Your task to perform on an android device: turn on wifi Image 0: 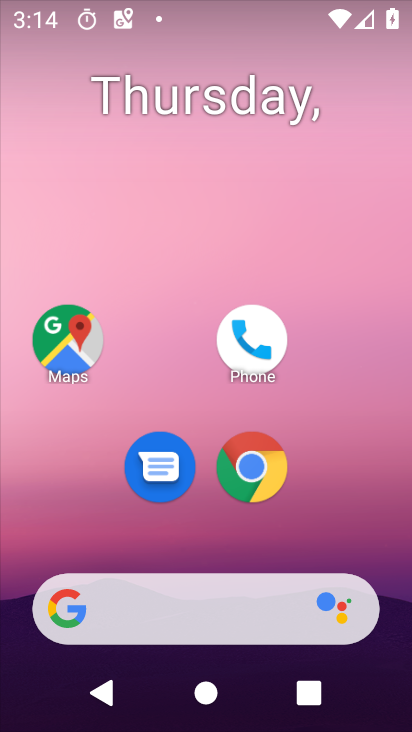
Step 0: click (234, 570)
Your task to perform on an android device: turn on wifi Image 1: 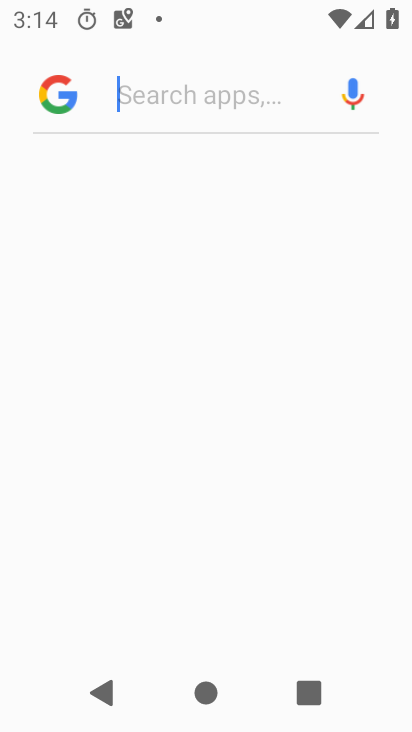
Step 1: drag from (208, 544) to (230, 76)
Your task to perform on an android device: turn on wifi Image 2: 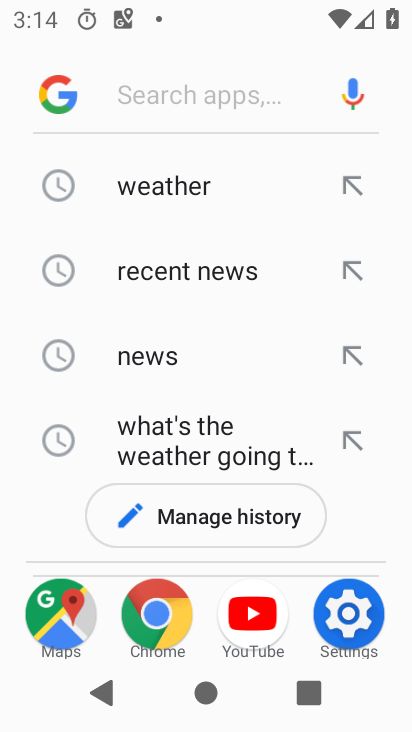
Step 2: press home button
Your task to perform on an android device: turn on wifi Image 3: 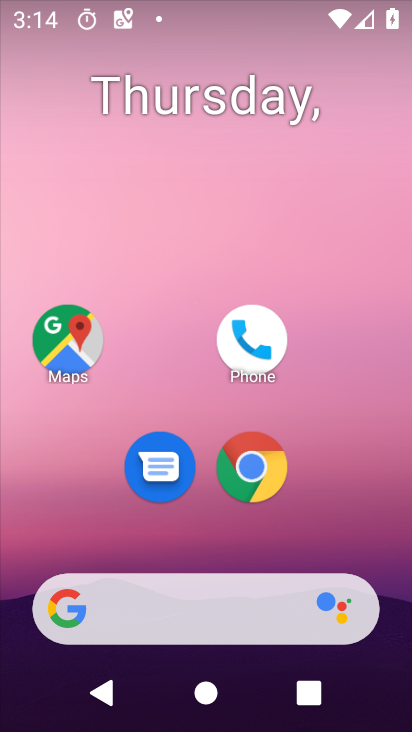
Step 3: drag from (209, 543) to (208, 167)
Your task to perform on an android device: turn on wifi Image 4: 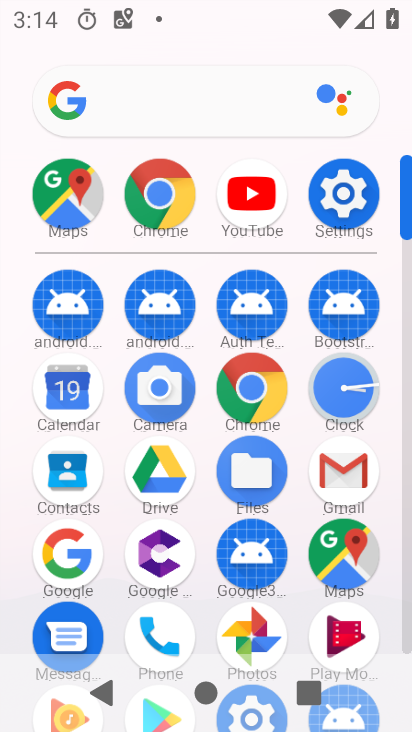
Step 4: click (335, 195)
Your task to perform on an android device: turn on wifi Image 5: 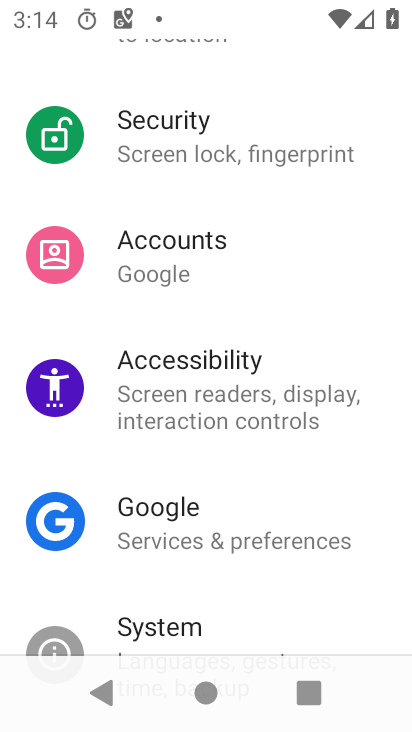
Step 5: drag from (238, 196) to (326, 722)
Your task to perform on an android device: turn on wifi Image 6: 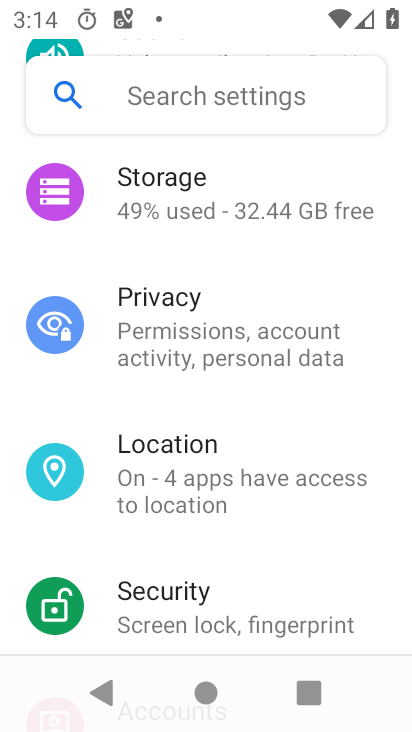
Step 6: drag from (251, 262) to (322, 731)
Your task to perform on an android device: turn on wifi Image 7: 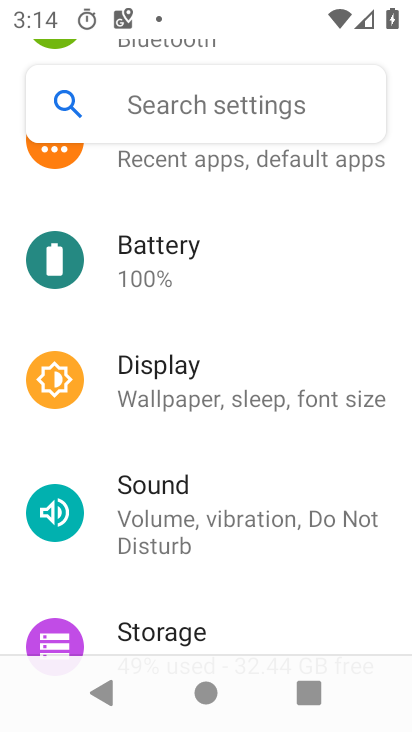
Step 7: drag from (222, 243) to (290, 729)
Your task to perform on an android device: turn on wifi Image 8: 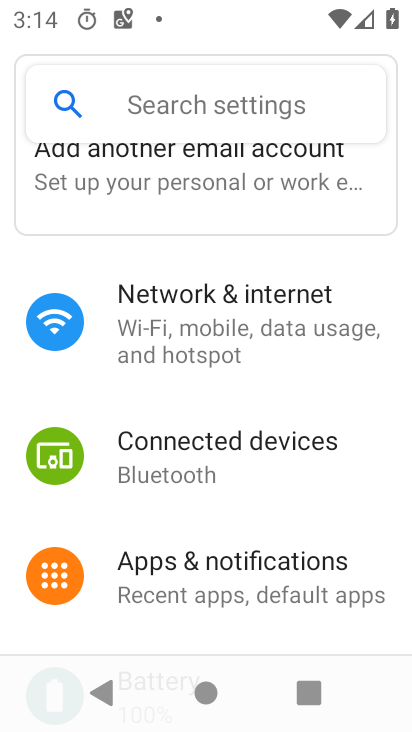
Step 8: drag from (201, 270) to (346, 161)
Your task to perform on an android device: turn on wifi Image 9: 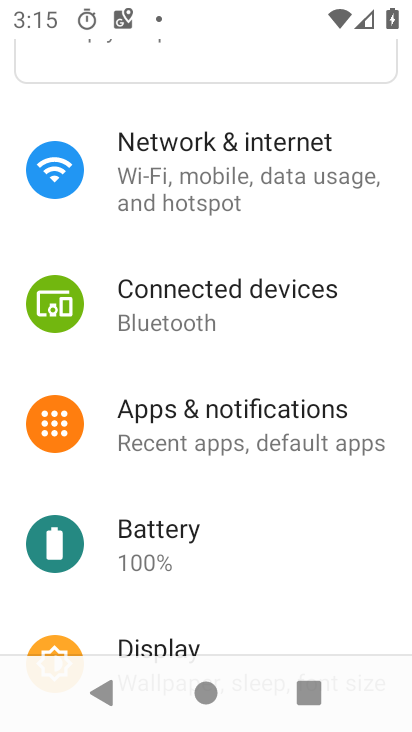
Step 9: click (221, 180)
Your task to perform on an android device: turn on wifi Image 10: 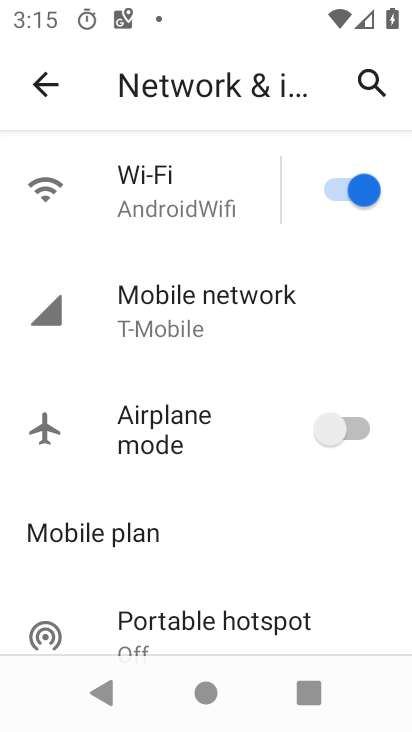
Step 10: task complete